Your task to perform on an android device: toggle translation in the chrome app Image 0: 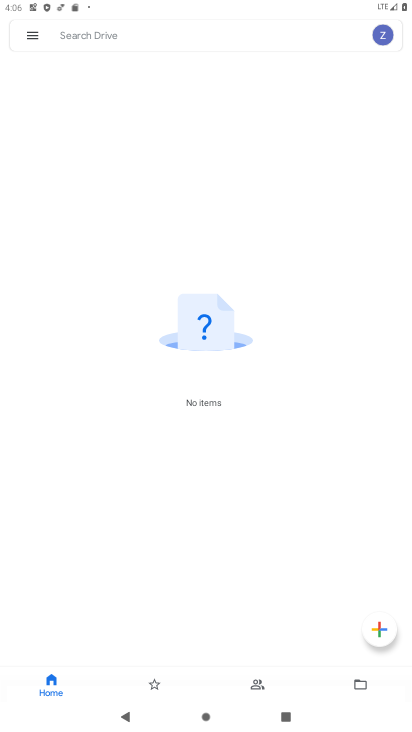
Step 0: press home button
Your task to perform on an android device: toggle translation in the chrome app Image 1: 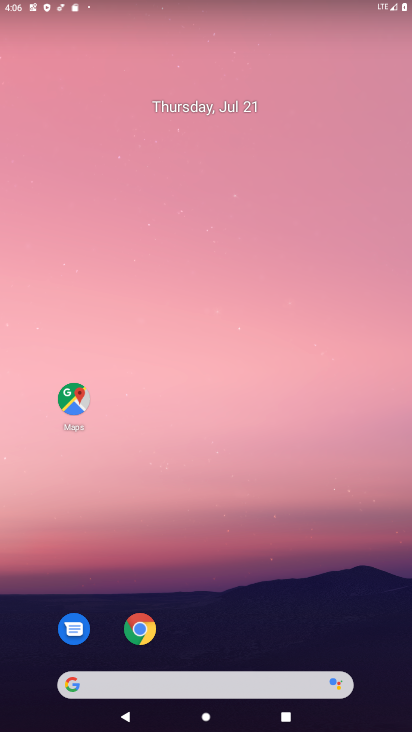
Step 1: drag from (312, 638) to (152, 99)
Your task to perform on an android device: toggle translation in the chrome app Image 2: 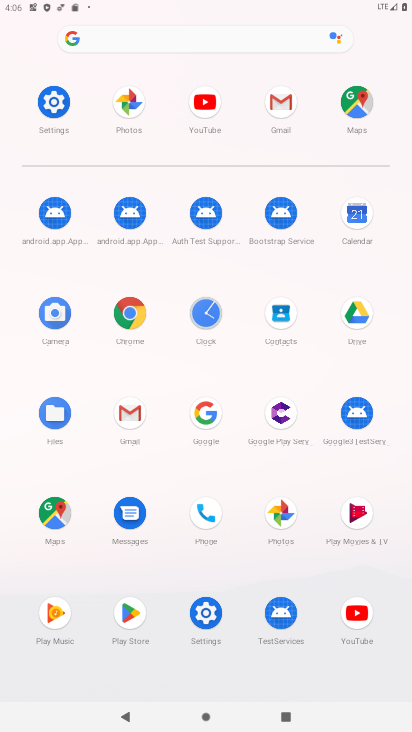
Step 2: click (135, 309)
Your task to perform on an android device: toggle translation in the chrome app Image 3: 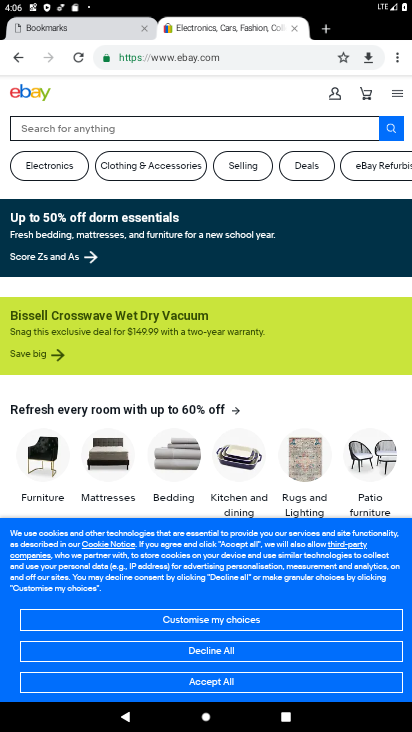
Step 3: click (394, 52)
Your task to perform on an android device: toggle translation in the chrome app Image 4: 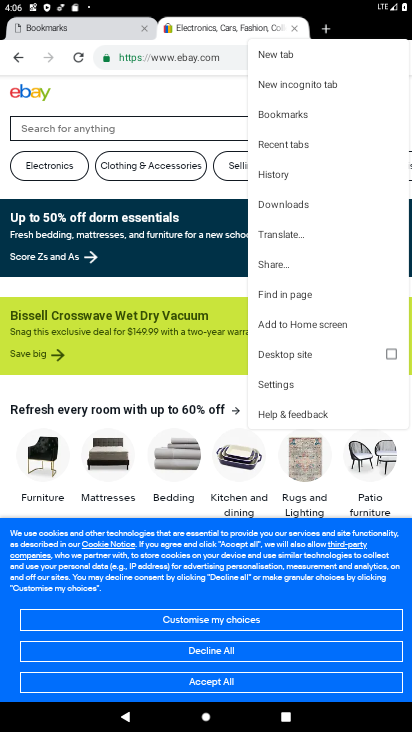
Step 4: click (280, 383)
Your task to perform on an android device: toggle translation in the chrome app Image 5: 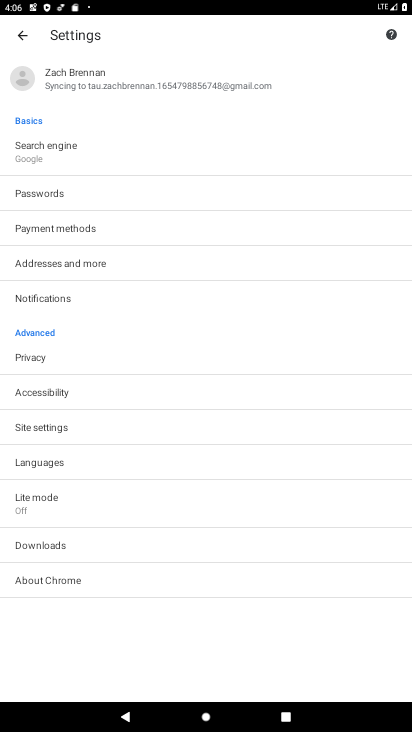
Step 5: click (62, 459)
Your task to perform on an android device: toggle translation in the chrome app Image 6: 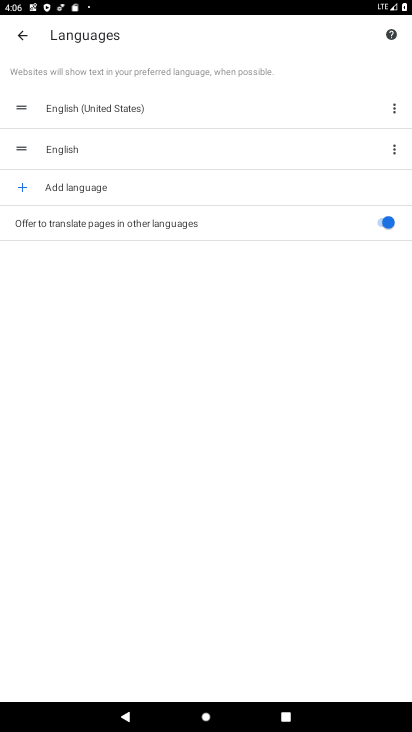
Step 6: click (379, 226)
Your task to perform on an android device: toggle translation in the chrome app Image 7: 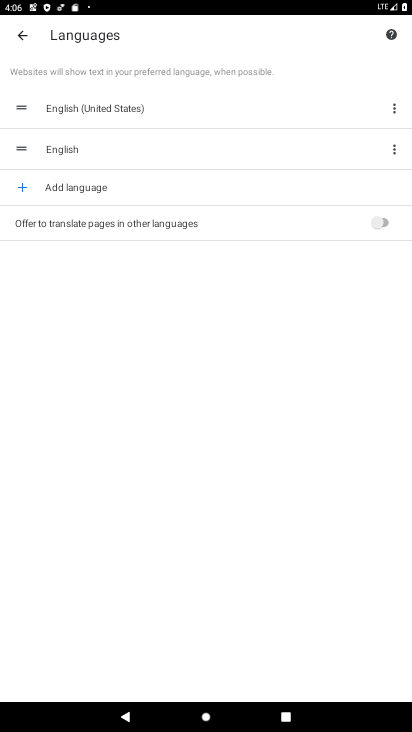
Step 7: task complete